Your task to perform on an android device: open device folders in google photos Image 0: 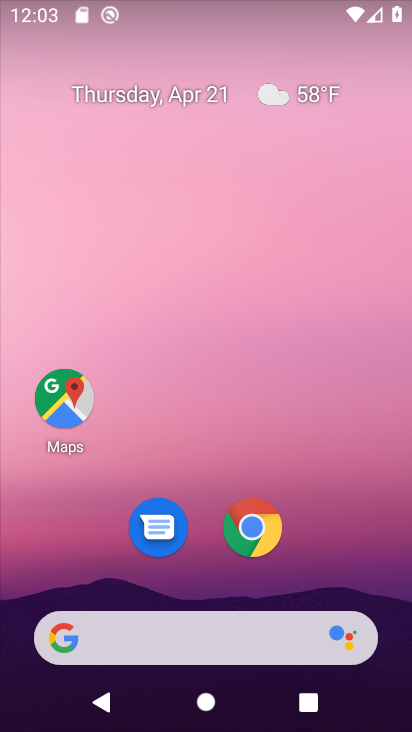
Step 0: drag from (351, 541) to (299, 156)
Your task to perform on an android device: open device folders in google photos Image 1: 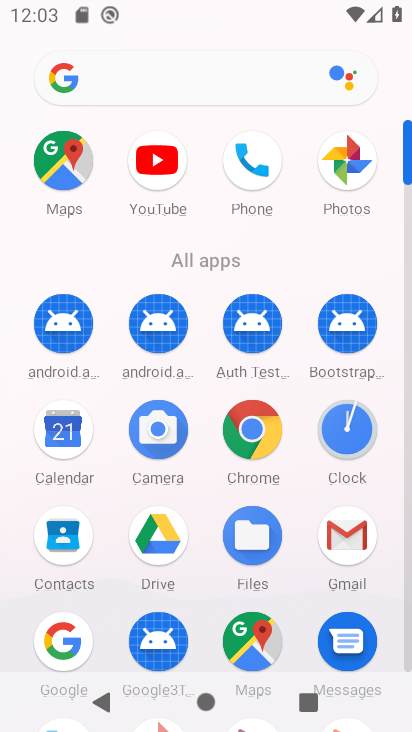
Step 1: click (342, 180)
Your task to perform on an android device: open device folders in google photos Image 2: 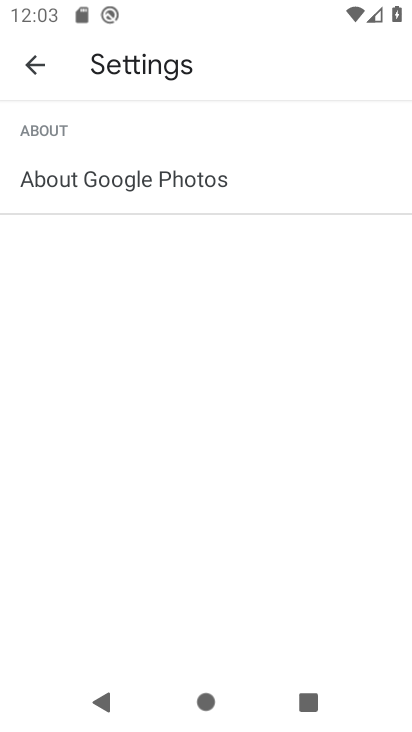
Step 2: press back button
Your task to perform on an android device: open device folders in google photos Image 3: 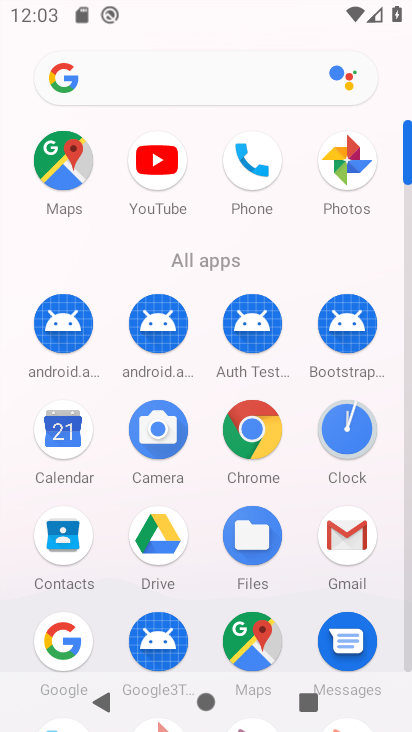
Step 3: click (341, 180)
Your task to perform on an android device: open device folders in google photos Image 4: 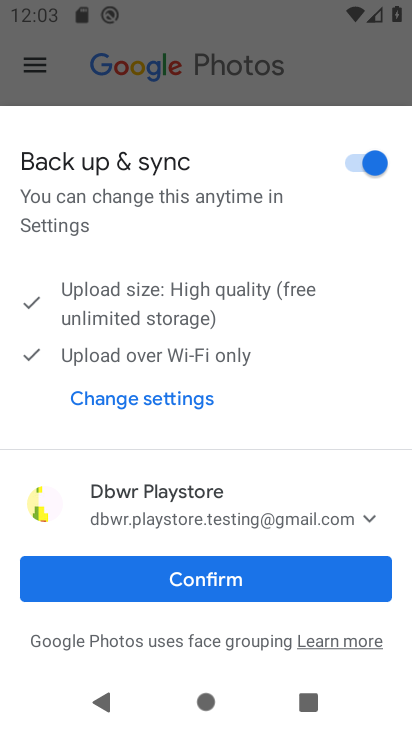
Step 4: click (232, 579)
Your task to perform on an android device: open device folders in google photos Image 5: 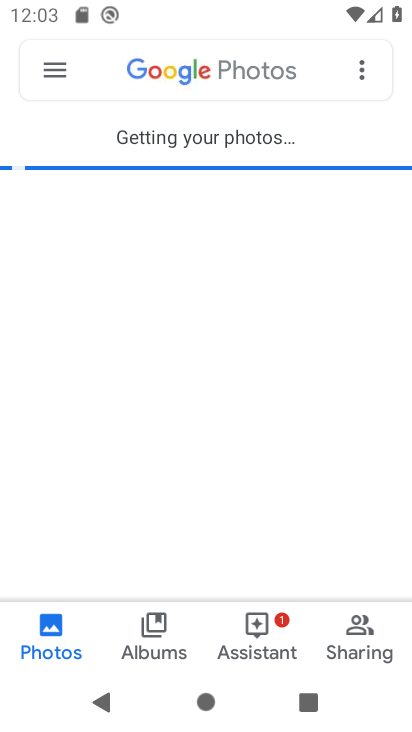
Step 5: click (28, 70)
Your task to perform on an android device: open device folders in google photos Image 6: 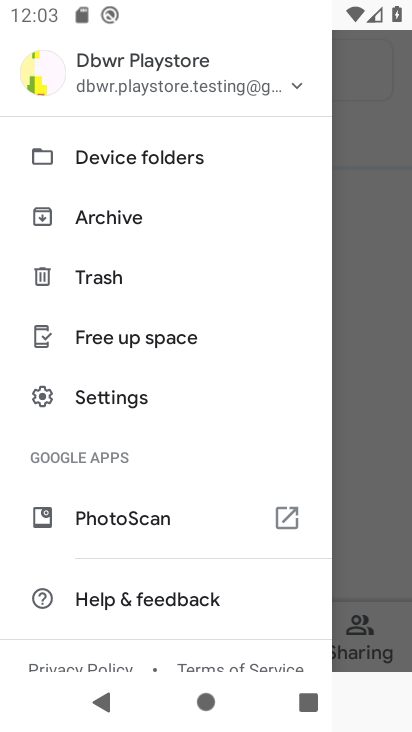
Step 6: click (152, 147)
Your task to perform on an android device: open device folders in google photos Image 7: 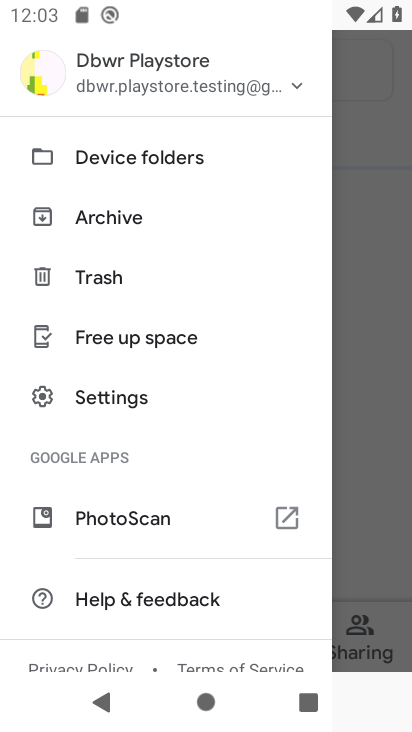
Step 7: click (163, 163)
Your task to perform on an android device: open device folders in google photos Image 8: 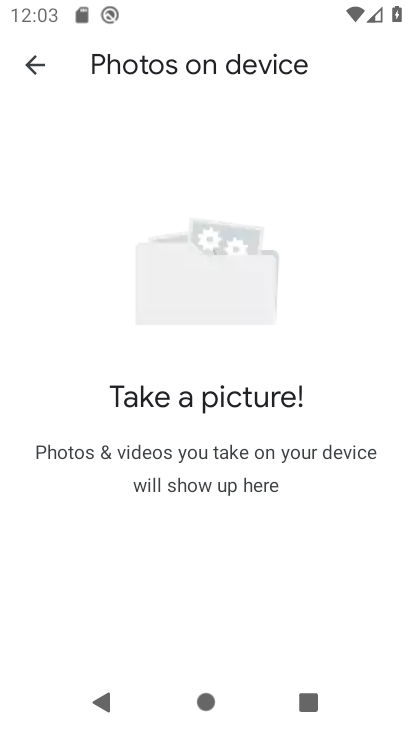
Step 8: task complete